Your task to perform on an android device: turn smart compose on in the gmail app Image 0: 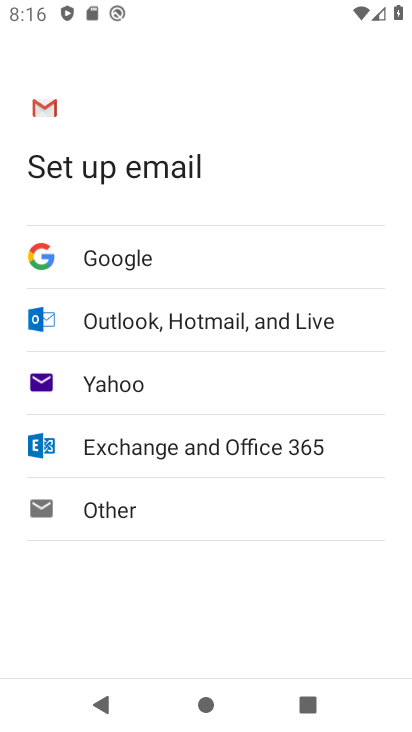
Step 0: press home button
Your task to perform on an android device: turn smart compose on in the gmail app Image 1: 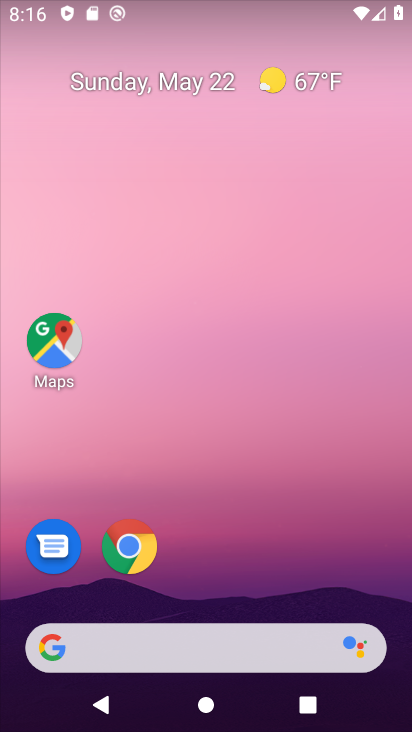
Step 1: drag from (234, 619) to (283, 10)
Your task to perform on an android device: turn smart compose on in the gmail app Image 2: 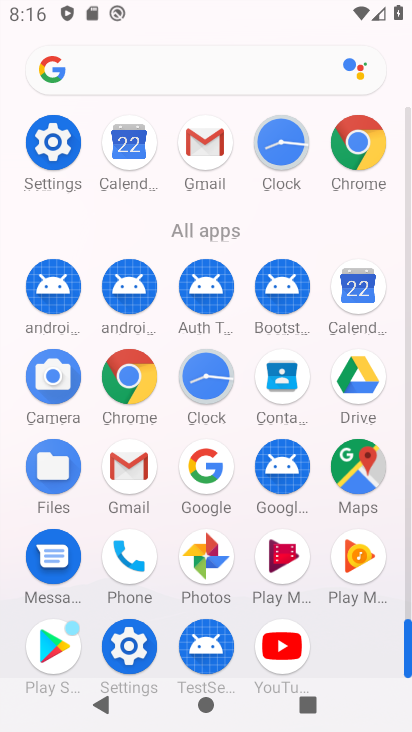
Step 2: click (126, 464)
Your task to perform on an android device: turn smart compose on in the gmail app Image 3: 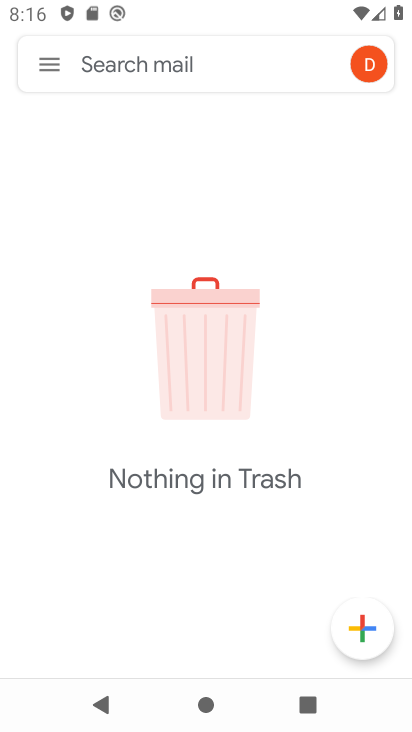
Step 3: click (51, 72)
Your task to perform on an android device: turn smart compose on in the gmail app Image 4: 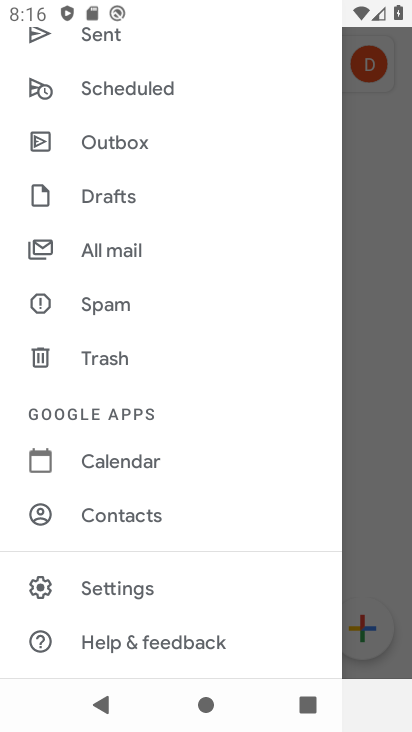
Step 4: click (131, 595)
Your task to perform on an android device: turn smart compose on in the gmail app Image 5: 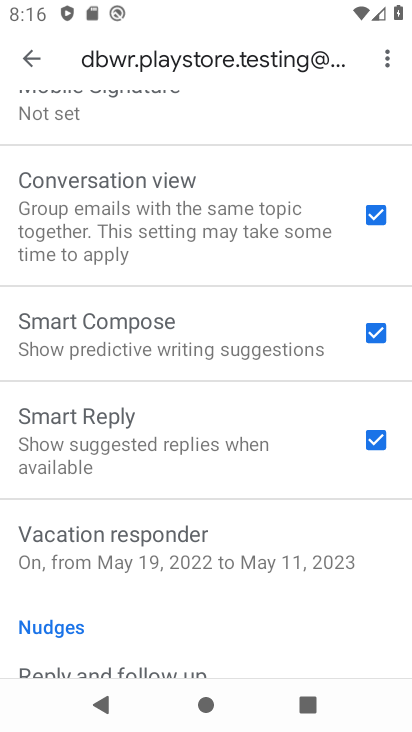
Step 5: task complete